Your task to perform on an android device: turn off location history Image 0: 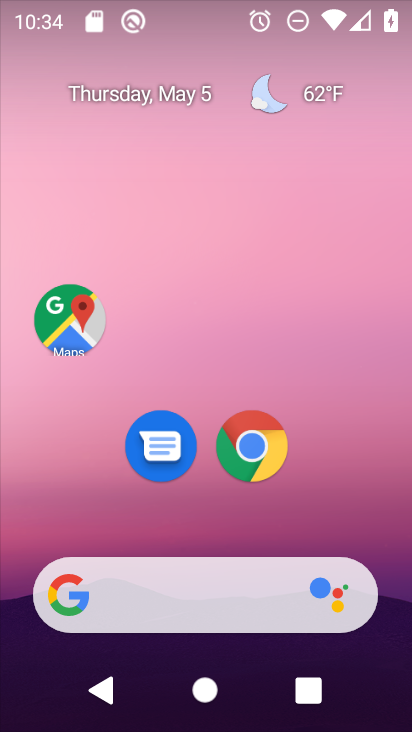
Step 0: drag from (259, 551) to (256, 175)
Your task to perform on an android device: turn off location history Image 1: 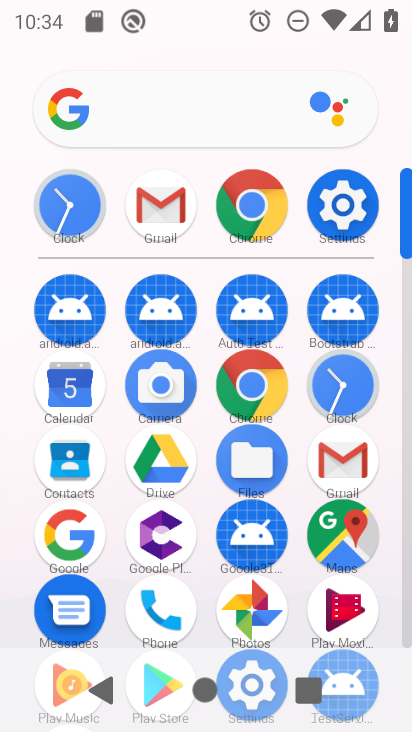
Step 1: click (333, 223)
Your task to perform on an android device: turn off location history Image 2: 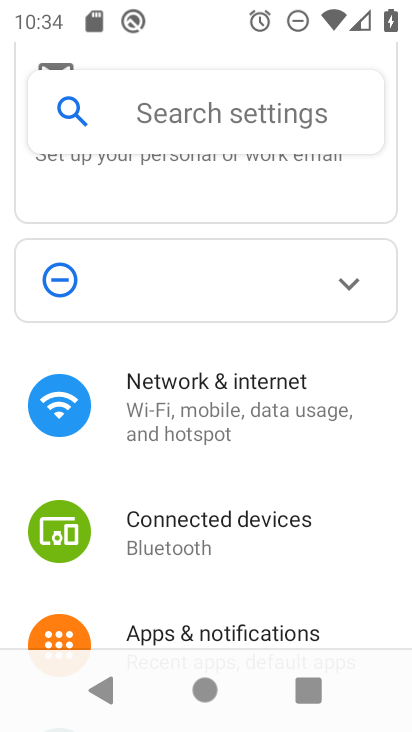
Step 2: click (242, 123)
Your task to perform on an android device: turn off location history Image 3: 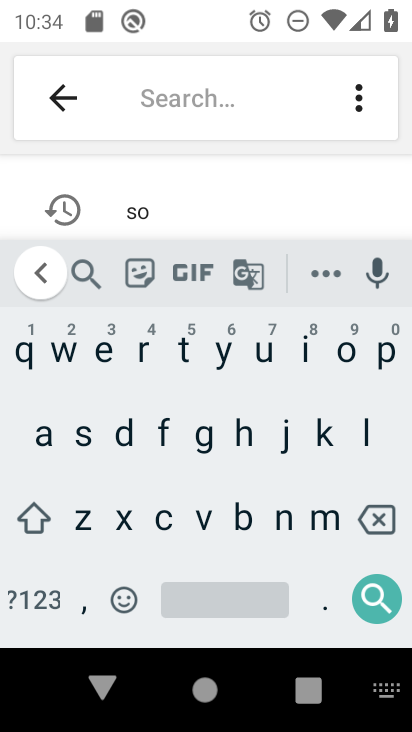
Step 3: click (361, 432)
Your task to perform on an android device: turn off location history Image 4: 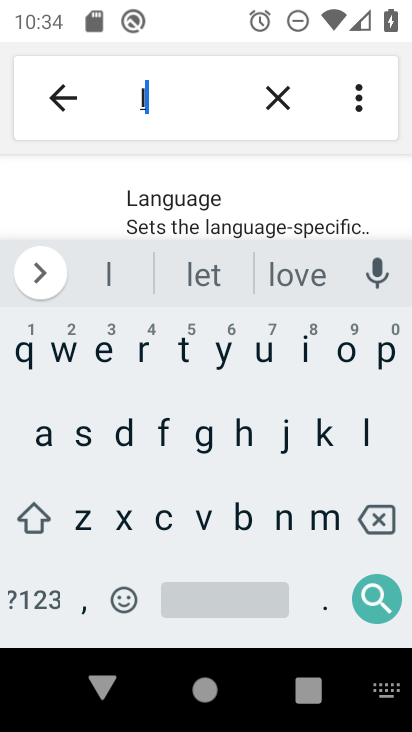
Step 4: click (334, 356)
Your task to perform on an android device: turn off location history Image 5: 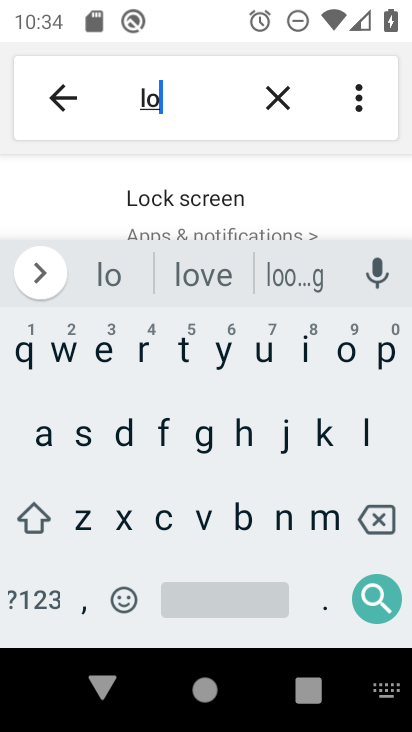
Step 5: click (154, 522)
Your task to perform on an android device: turn off location history Image 6: 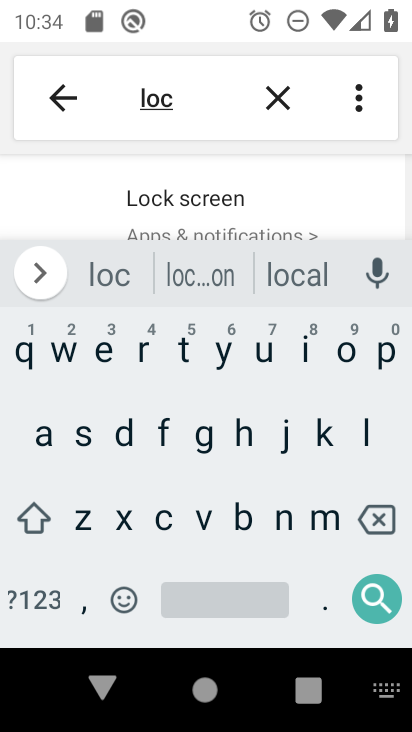
Step 6: click (44, 441)
Your task to perform on an android device: turn off location history Image 7: 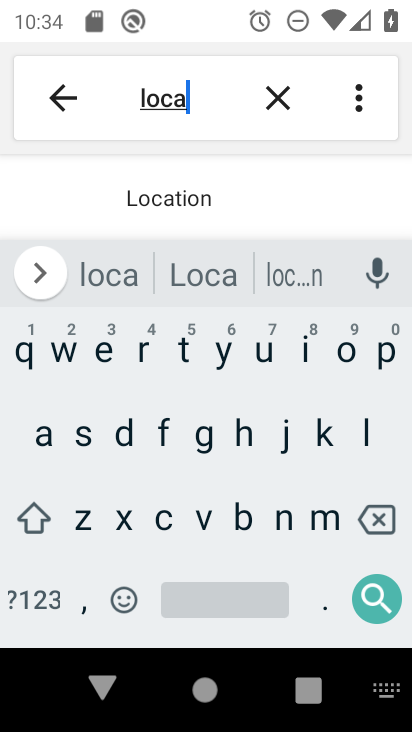
Step 7: press back button
Your task to perform on an android device: turn off location history Image 8: 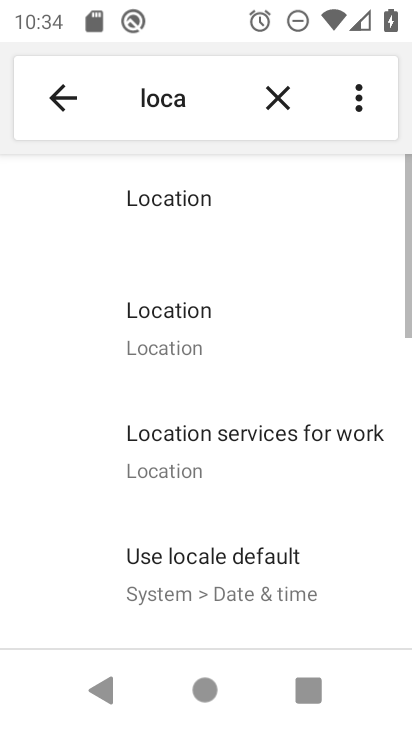
Step 8: click (153, 343)
Your task to perform on an android device: turn off location history Image 9: 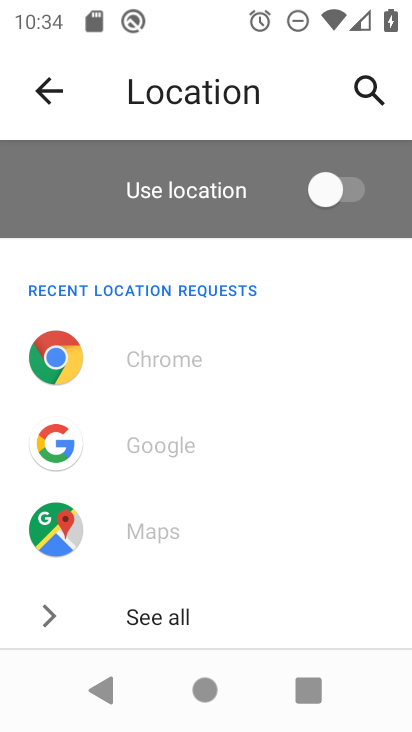
Step 9: click (341, 181)
Your task to perform on an android device: turn off location history Image 10: 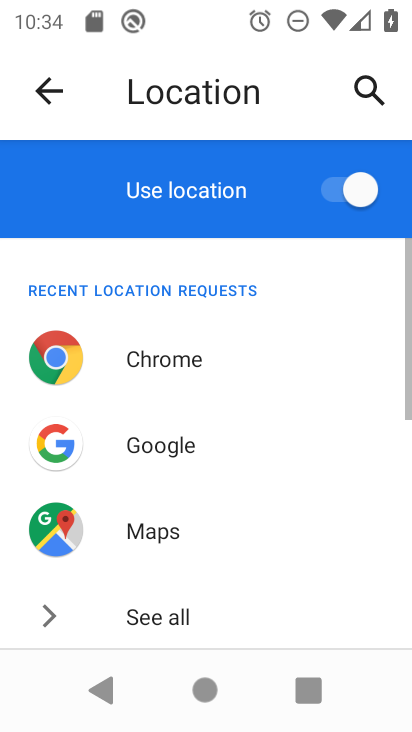
Step 10: drag from (210, 489) to (246, 235)
Your task to perform on an android device: turn off location history Image 11: 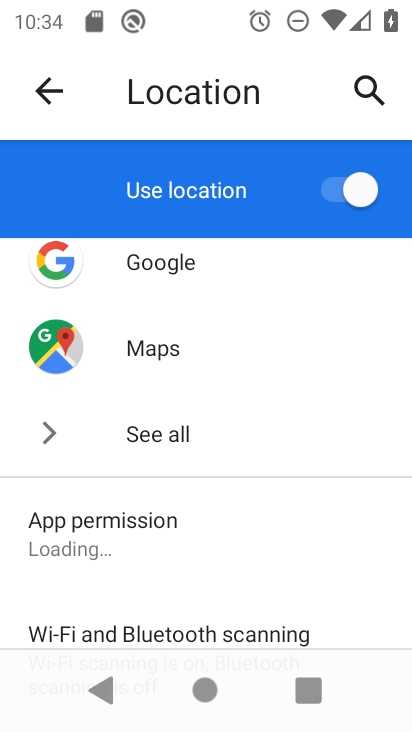
Step 11: drag from (185, 531) to (256, 180)
Your task to perform on an android device: turn off location history Image 12: 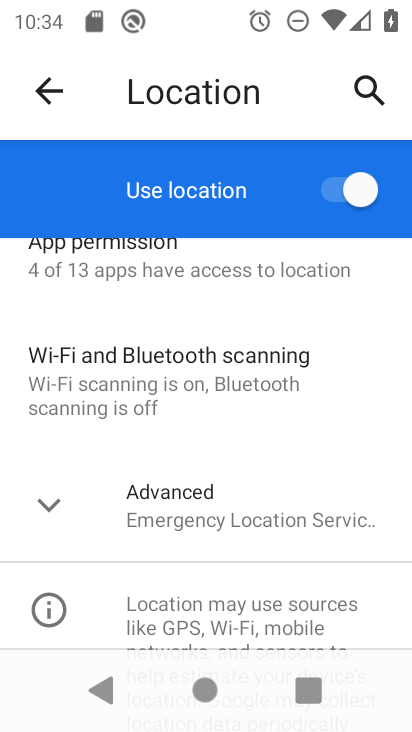
Step 12: click (146, 539)
Your task to perform on an android device: turn off location history Image 13: 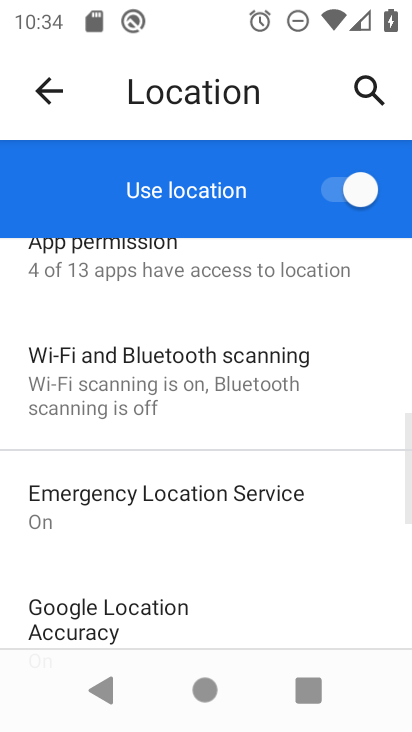
Step 13: drag from (107, 606) to (197, 366)
Your task to perform on an android device: turn off location history Image 14: 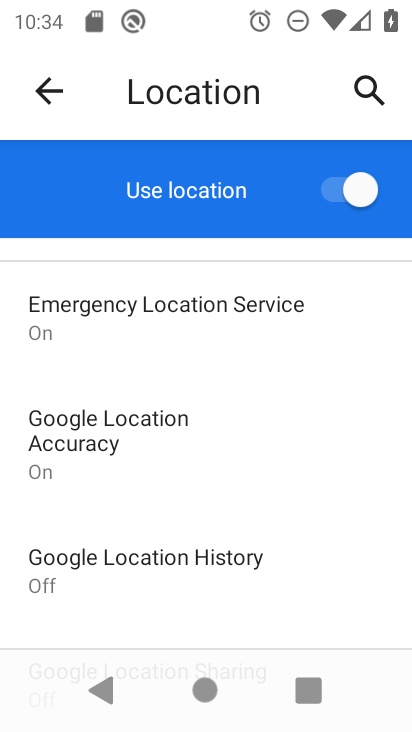
Step 14: click (164, 576)
Your task to perform on an android device: turn off location history Image 15: 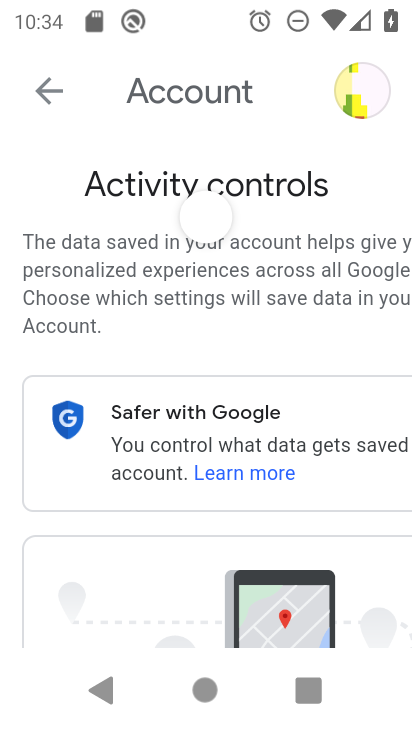
Step 15: task complete